Your task to perform on an android device: open chrome privacy settings Image 0: 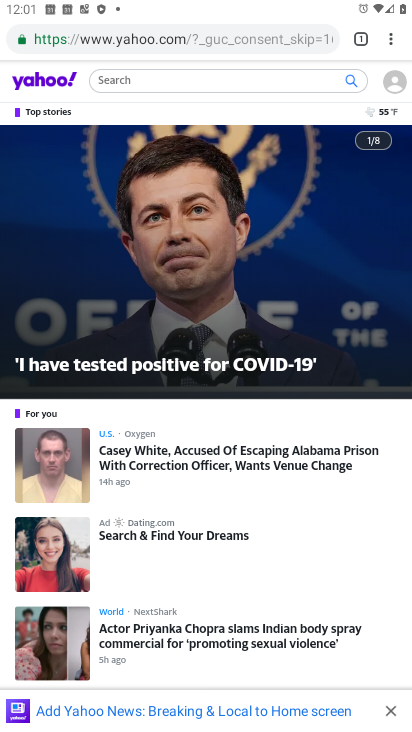
Step 0: press home button
Your task to perform on an android device: open chrome privacy settings Image 1: 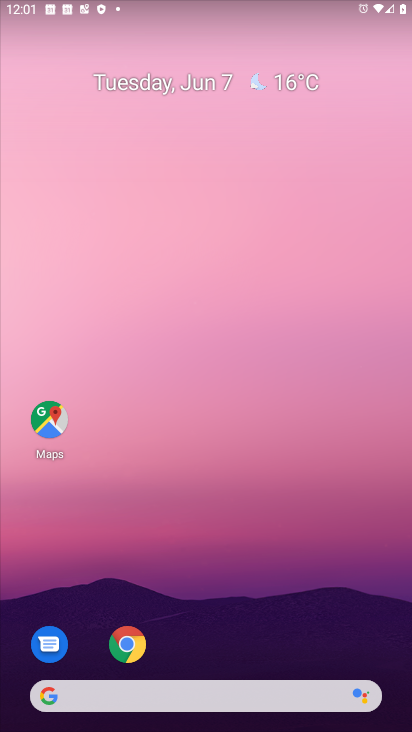
Step 1: click (109, 657)
Your task to perform on an android device: open chrome privacy settings Image 2: 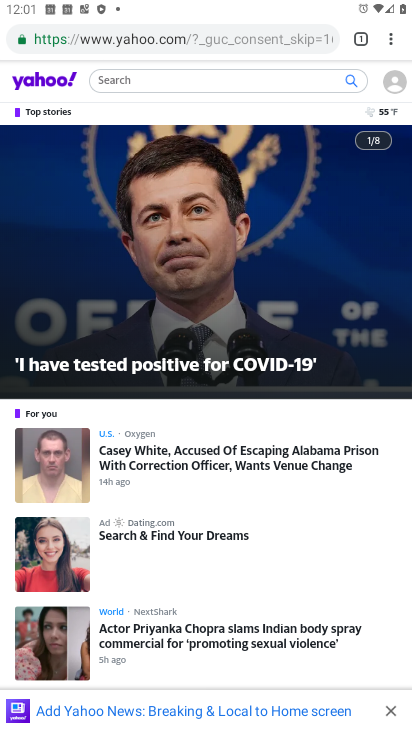
Step 2: click (384, 38)
Your task to perform on an android device: open chrome privacy settings Image 3: 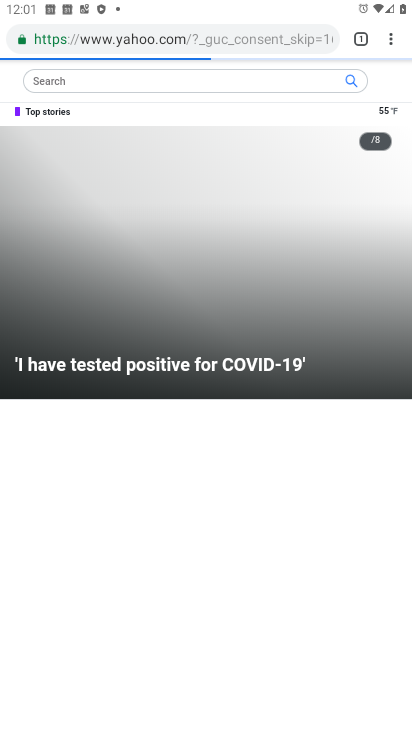
Step 3: click (391, 38)
Your task to perform on an android device: open chrome privacy settings Image 4: 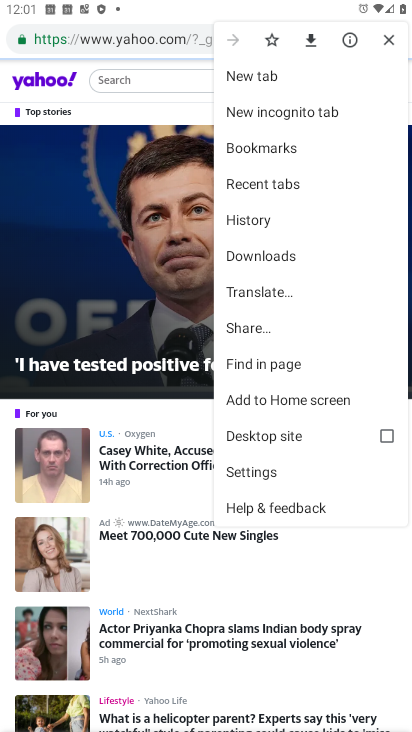
Step 4: click (301, 474)
Your task to perform on an android device: open chrome privacy settings Image 5: 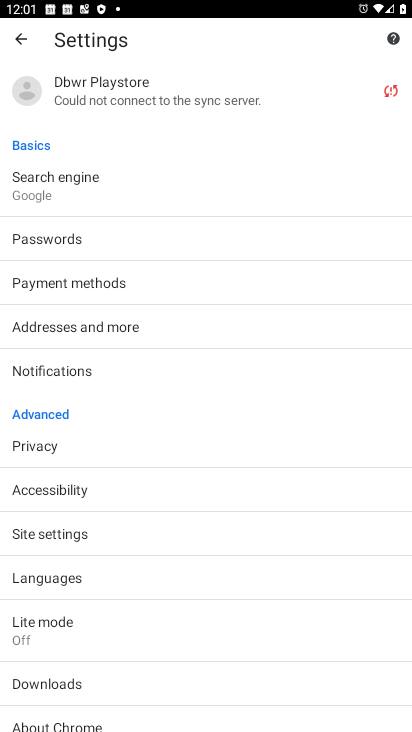
Step 5: click (125, 444)
Your task to perform on an android device: open chrome privacy settings Image 6: 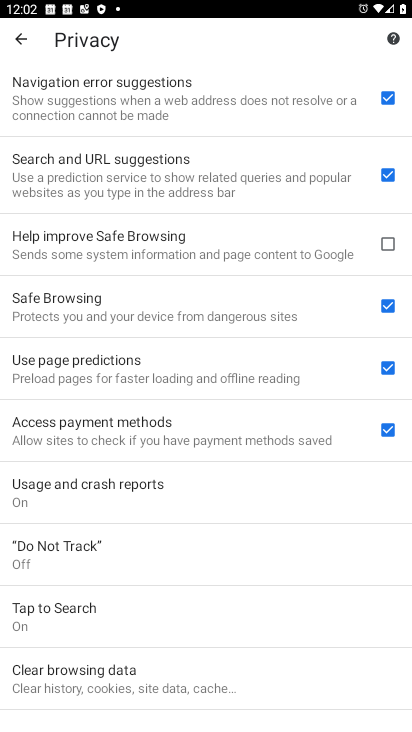
Step 6: task complete